Your task to perform on an android device: stop showing notifications on the lock screen Image 0: 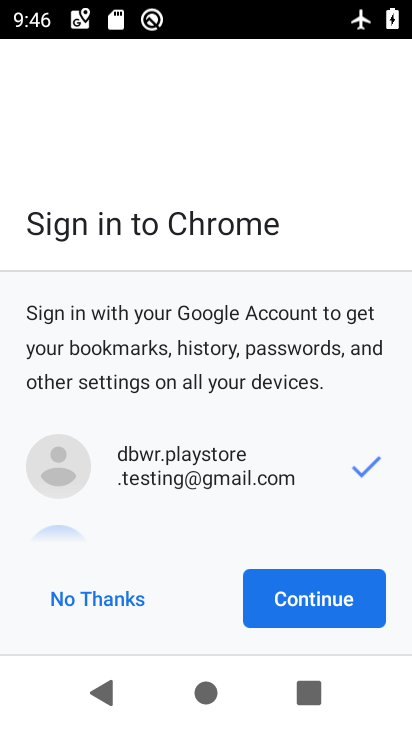
Step 0: press home button
Your task to perform on an android device: stop showing notifications on the lock screen Image 1: 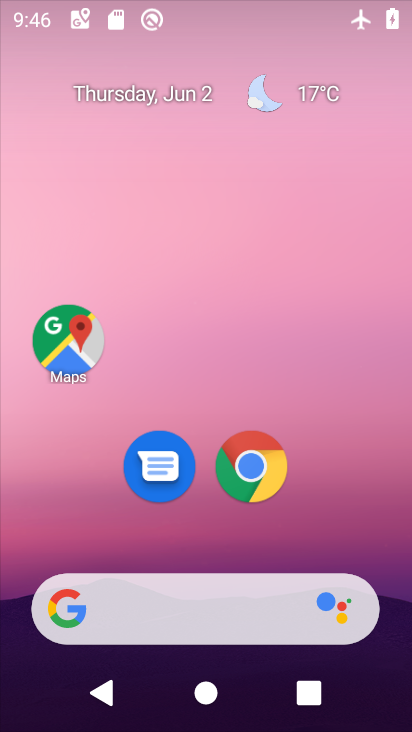
Step 1: drag from (197, 485) to (153, 151)
Your task to perform on an android device: stop showing notifications on the lock screen Image 2: 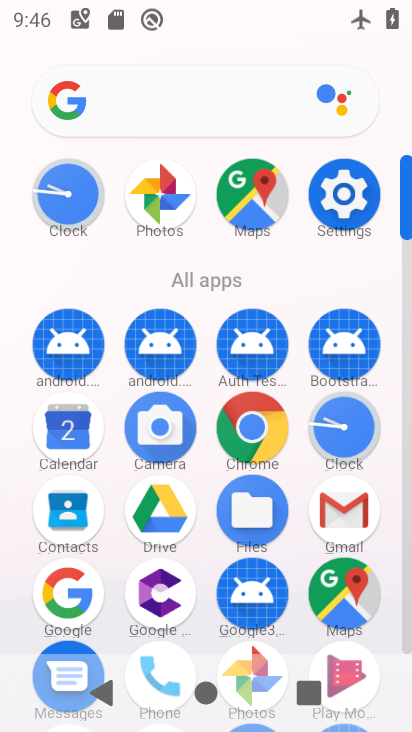
Step 2: click (240, 424)
Your task to perform on an android device: stop showing notifications on the lock screen Image 3: 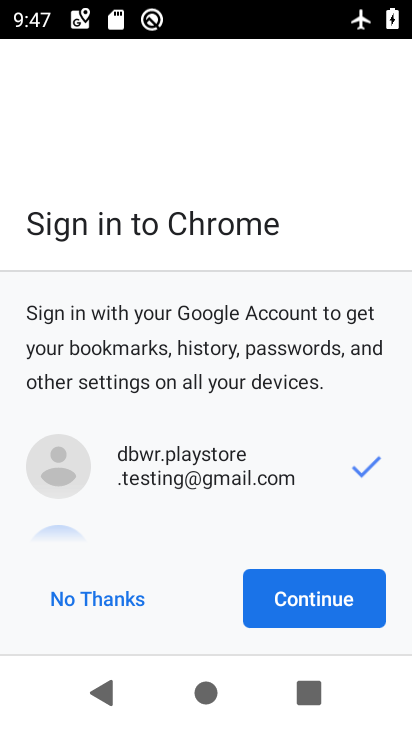
Step 3: click (289, 597)
Your task to perform on an android device: stop showing notifications on the lock screen Image 4: 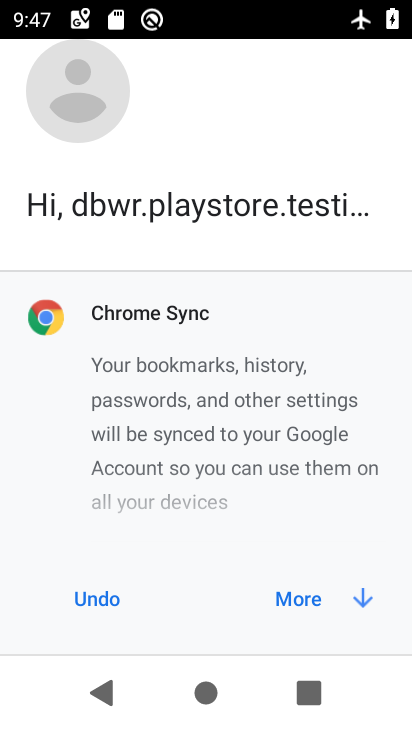
Step 4: click (288, 593)
Your task to perform on an android device: stop showing notifications on the lock screen Image 5: 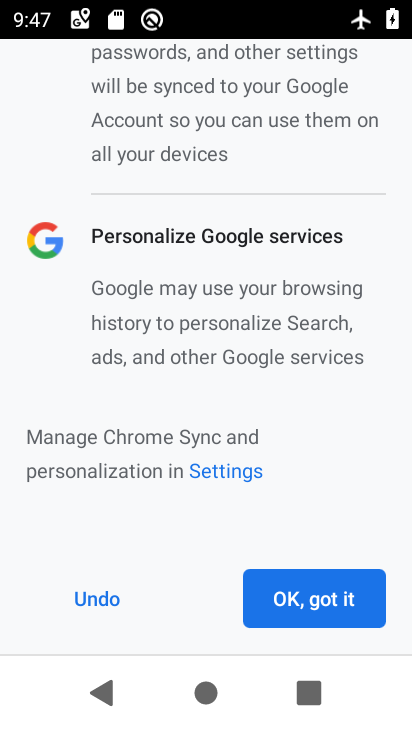
Step 5: click (339, 596)
Your task to perform on an android device: stop showing notifications on the lock screen Image 6: 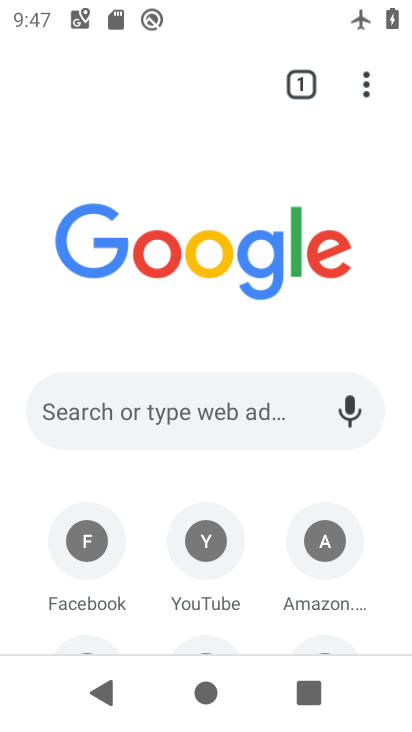
Step 6: click (374, 89)
Your task to perform on an android device: stop showing notifications on the lock screen Image 7: 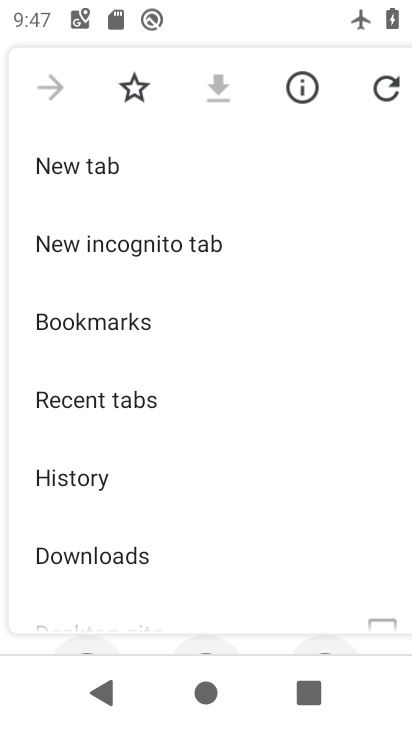
Step 7: drag from (206, 505) to (210, 211)
Your task to perform on an android device: stop showing notifications on the lock screen Image 8: 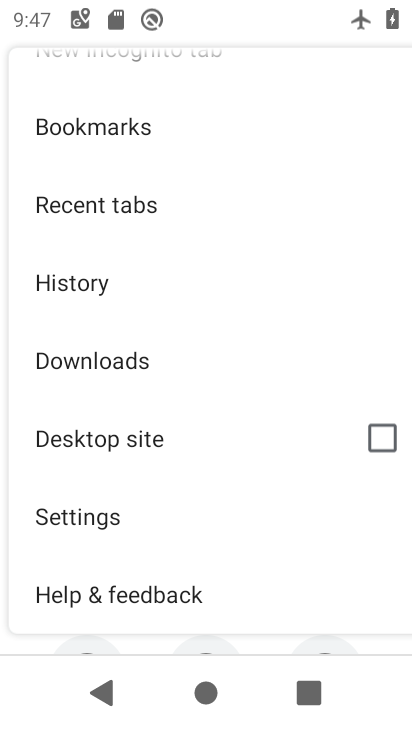
Step 8: click (134, 495)
Your task to perform on an android device: stop showing notifications on the lock screen Image 9: 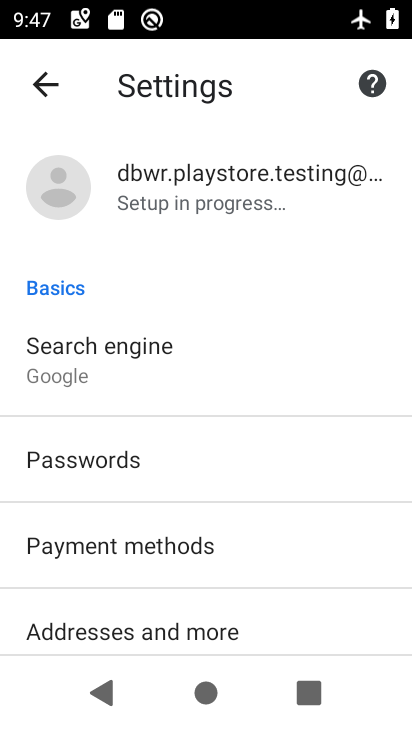
Step 9: press home button
Your task to perform on an android device: stop showing notifications on the lock screen Image 10: 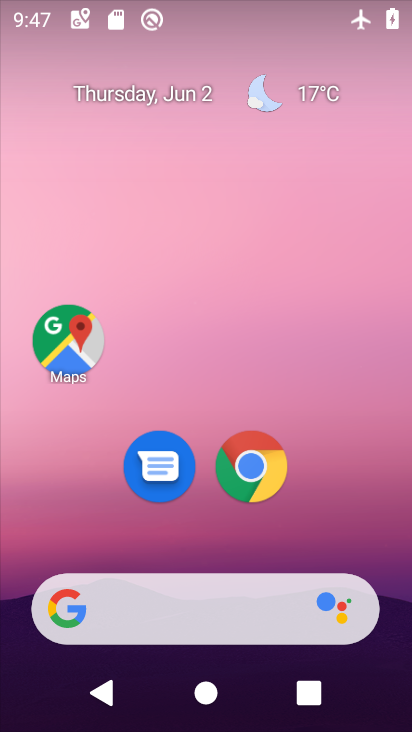
Step 10: click (267, 454)
Your task to perform on an android device: stop showing notifications on the lock screen Image 11: 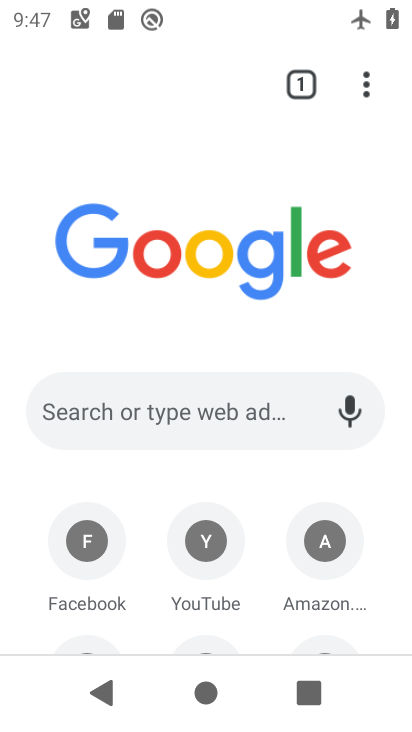
Step 11: click (372, 77)
Your task to perform on an android device: stop showing notifications on the lock screen Image 12: 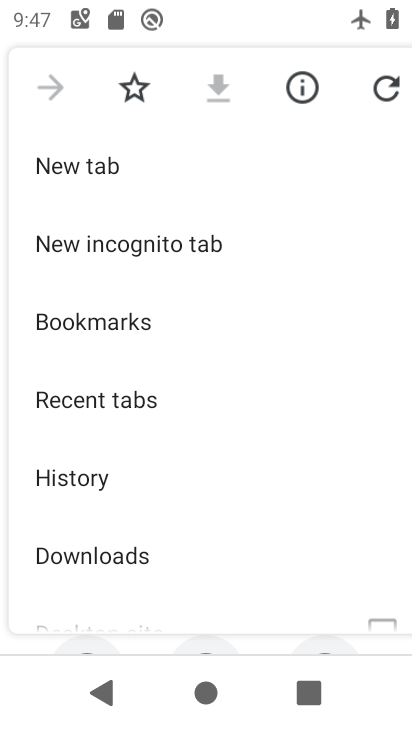
Step 12: drag from (201, 476) to (184, 248)
Your task to perform on an android device: stop showing notifications on the lock screen Image 13: 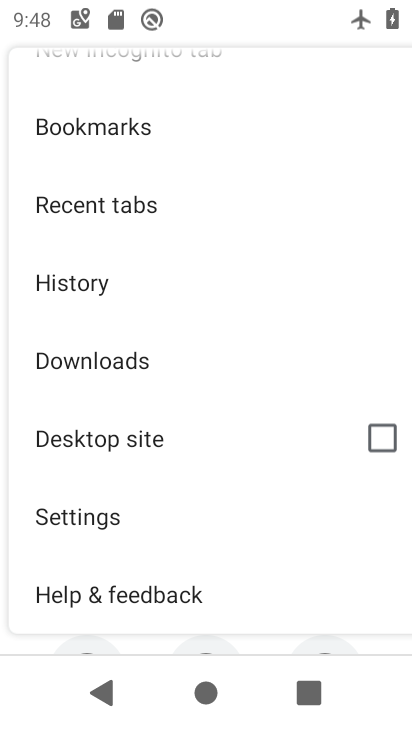
Step 13: drag from (126, 196) to (120, 577)
Your task to perform on an android device: stop showing notifications on the lock screen Image 14: 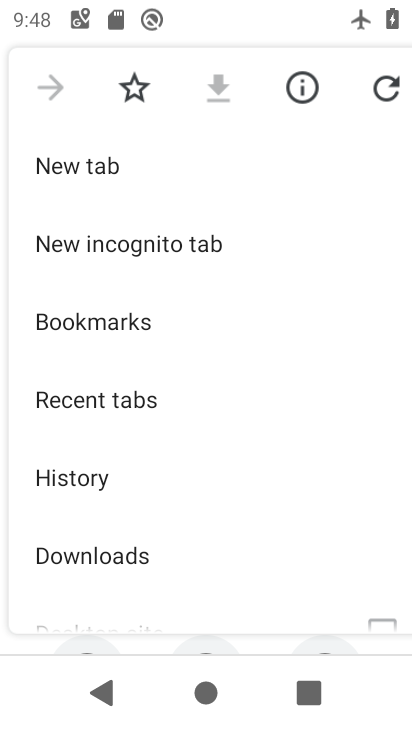
Step 14: press home button
Your task to perform on an android device: stop showing notifications on the lock screen Image 15: 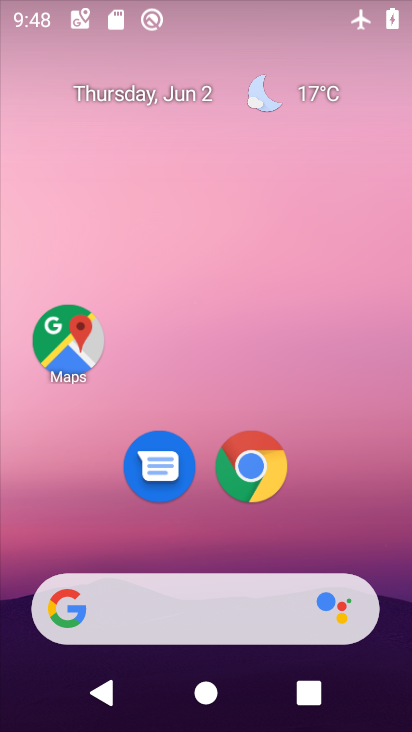
Step 15: drag from (195, 484) to (172, 196)
Your task to perform on an android device: stop showing notifications on the lock screen Image 16: 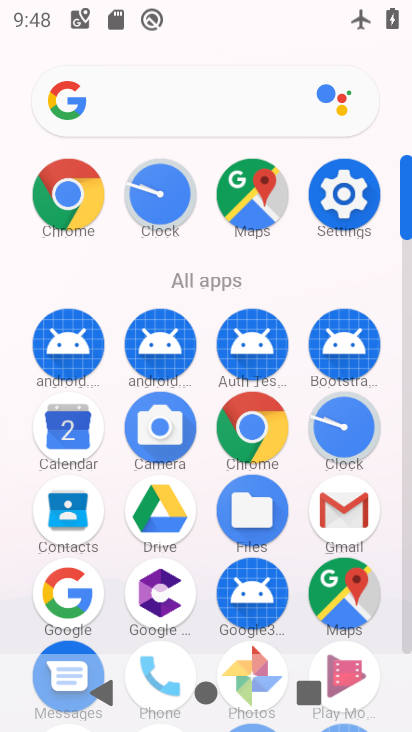
Step 16: click (336, 187)
Your task to perform on an android device: stop showing notifications on the lock screen Image 17: 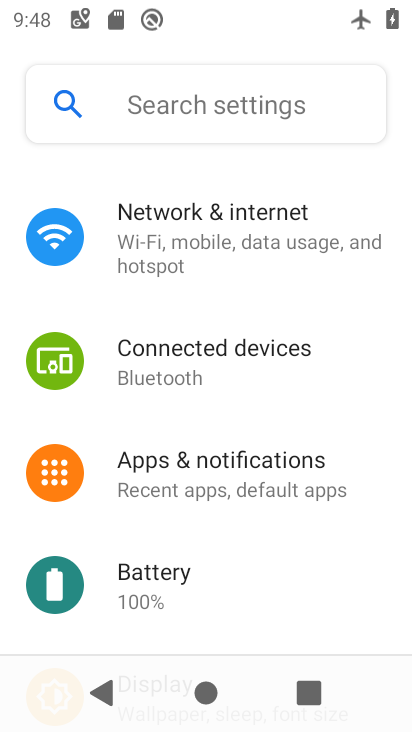
Step 17: click (275, 480)
Your task to perform on an android device: stop showing notifications on the lock screen Image 18: 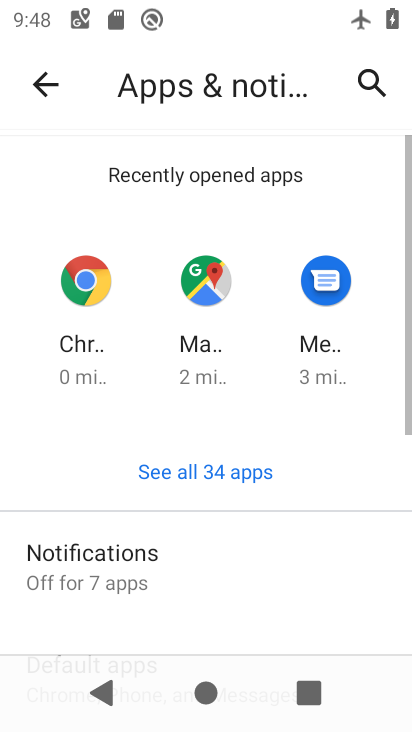
Step 18: drag from (191, 533) to (217, 274)
Your task to perform on an android device: stop showing notifications on the lock screen Image 19: 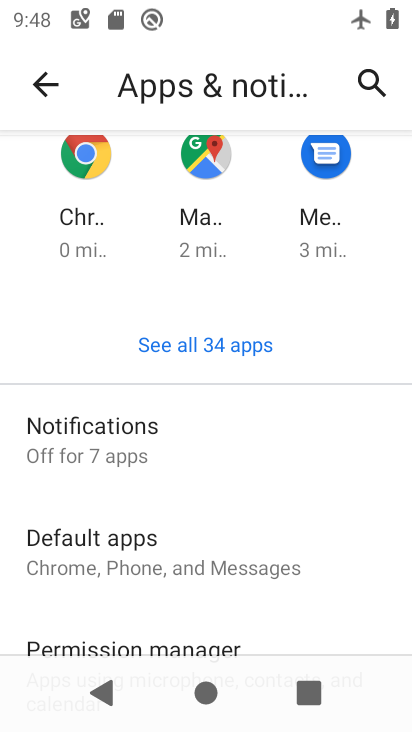
Step 19: click (83, 421)
Your task to perform on an android device: stop showing notifications on the lock screen Image 20: 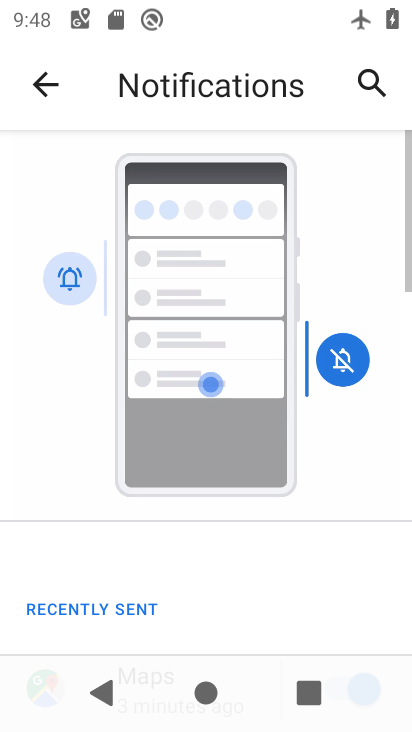
Step 20: drag from (236, 350) to (243, 182)
Your task to perform on an android device: stop showing notifications on the lock screen Image 21: 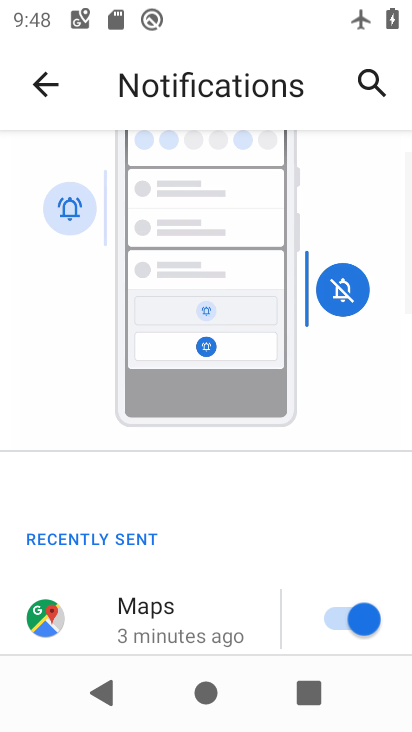
Step 21: drag from (177, 594) to (198, 130)
Your task to perform on an android device: stop showing notifications on the lock screen Image 22: 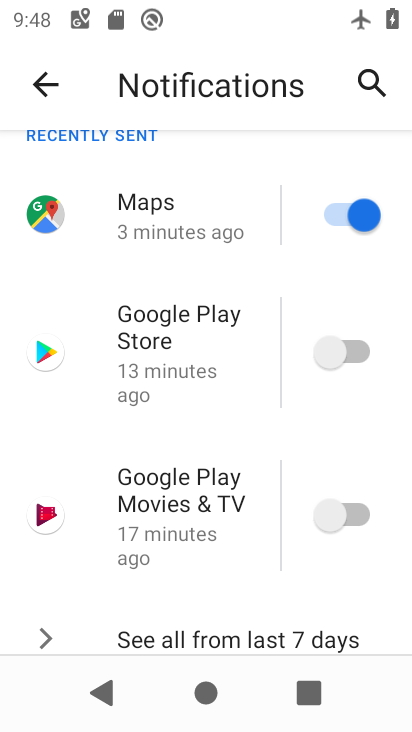
Step 22: drag from (229, 420) to (209, 101)
Your task to perform on an android device: stop showing notifications on the lock screen Image 23: 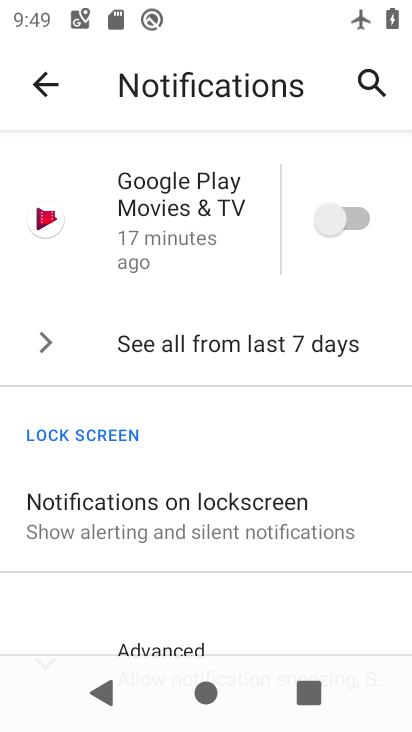
Step 23: click (188, 526)
Your task to perform on an android device: stop showing notifications on the lock screen Image 24: 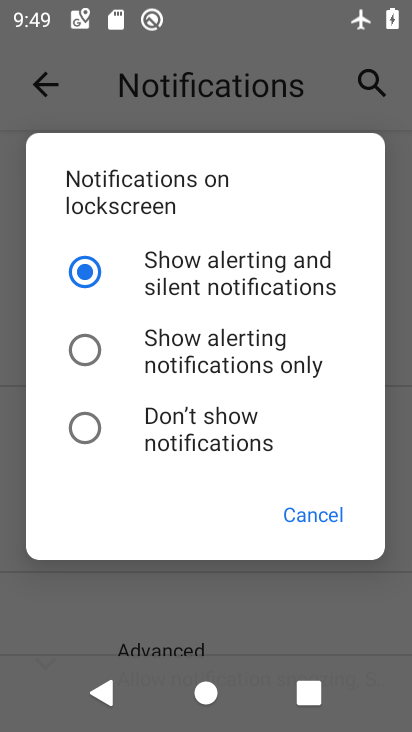
Step 24: click (181, 424)
Your task to perform on an android device: stop showing notifications on the lock screen Image 25: 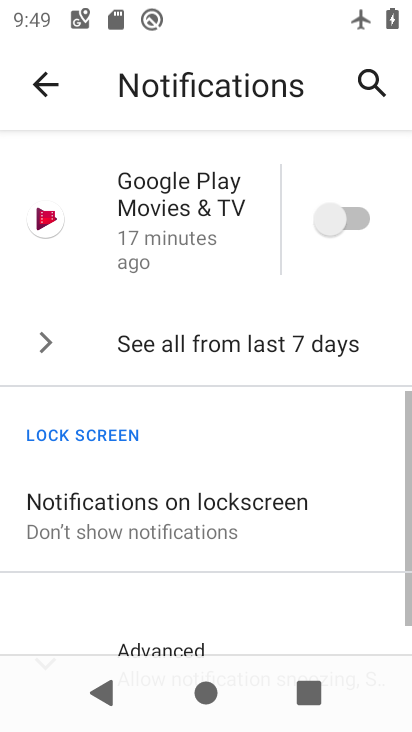
Step 25: task complete